Your task to perform on an android device: add a label to a message in the gmail app Image 0: 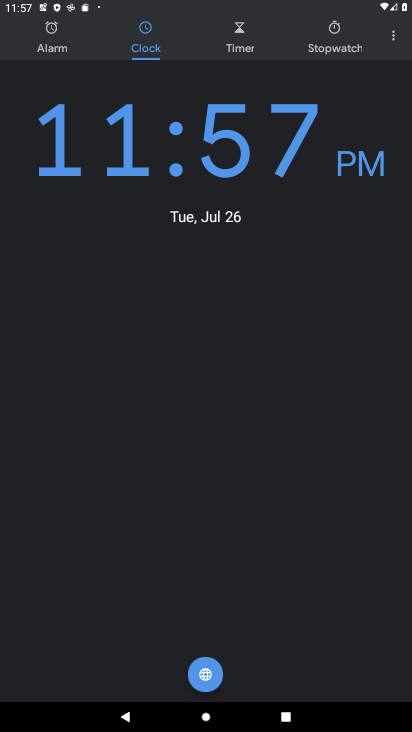
Step 0: press home button
Your task to perform on an android device: add a label to a message in the gmail app Image 1: 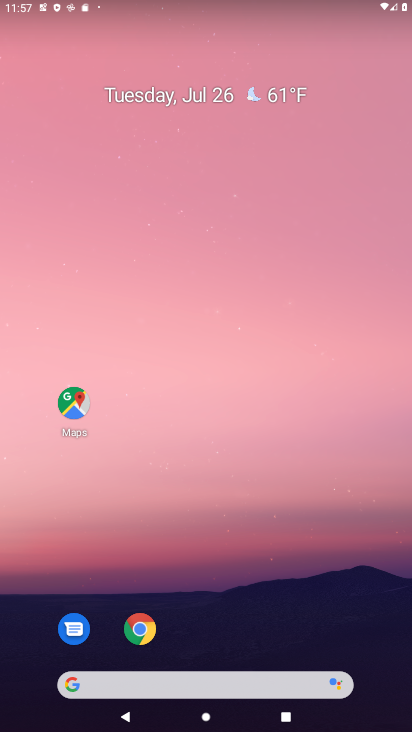
Step 1: drag from (252, 650) to (234, 142)
Your task to perform on an android device: add a label to a message in the gmail app Image 2: 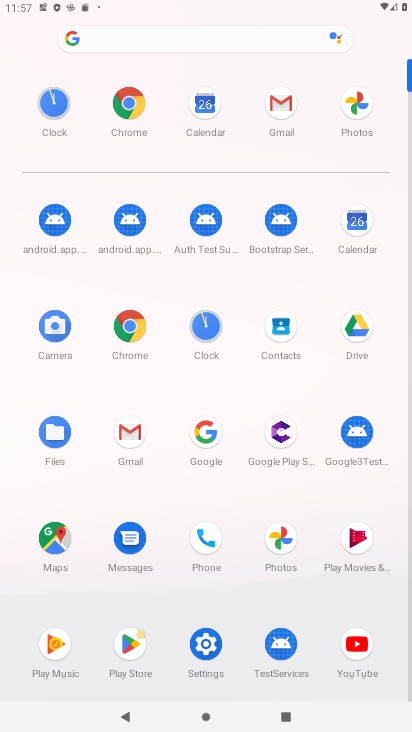
Step 2: click (273, 130)
Your task to perform on an android device: add a label to a message in the gmail app Image 3: 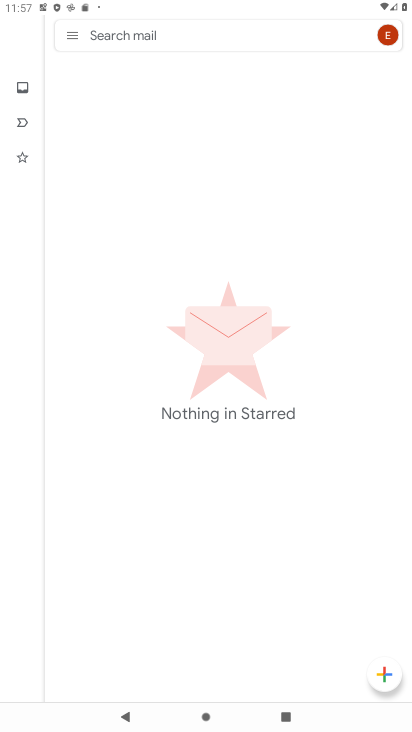
Step 3: task complete